Your task to perform on an android device: Open settings Image 0: 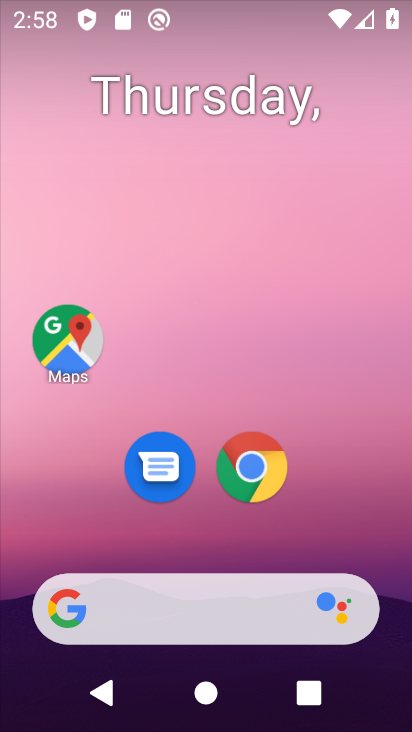
Step 0: drag from (160, 621) to (125, 101)
Your task to perform on an android device: Open settings Image 1: 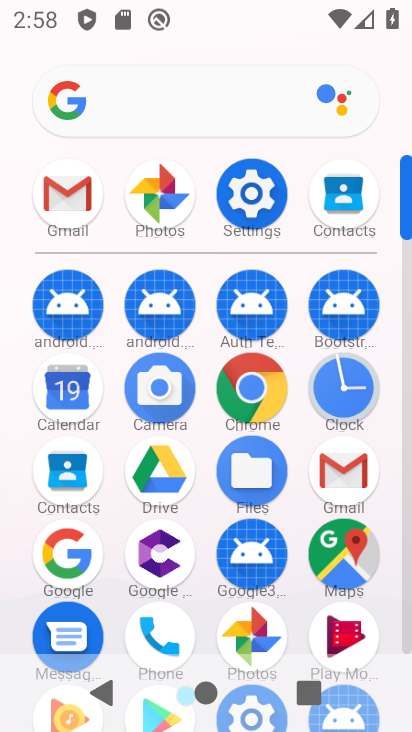
Step 1: click (242, 211)
Your task to perform on an android device: Open settings Image 2: 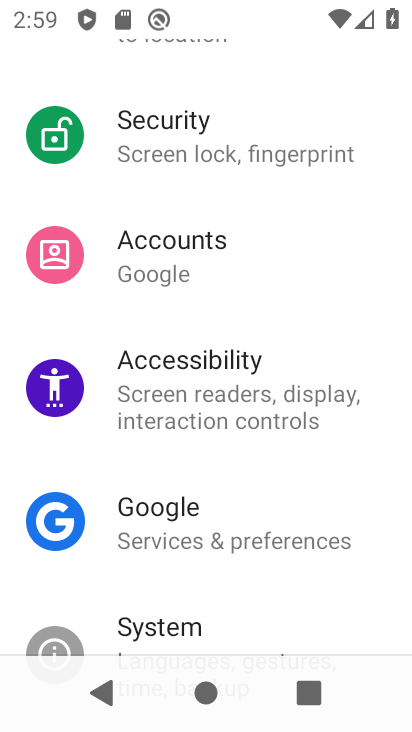
Step 2: task complete